Your task to perform on an android device: How much does a 2 bedroom apartment rent for in Boston? Image 0: 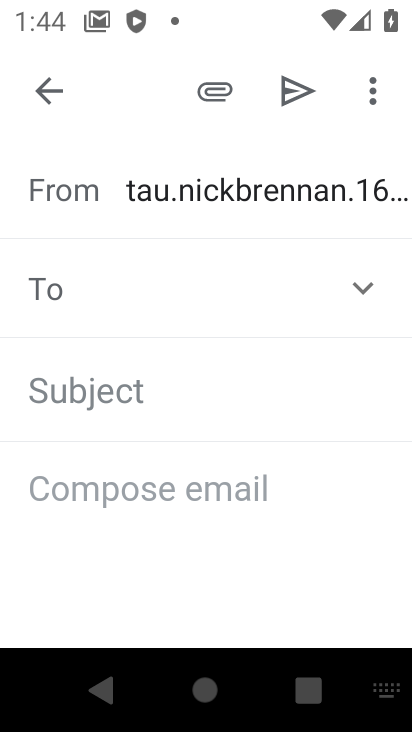
Step 0: press home button
Your task to perform on an android device: How much does a 2 bedroom apartment rent for in Boston? Image 1: 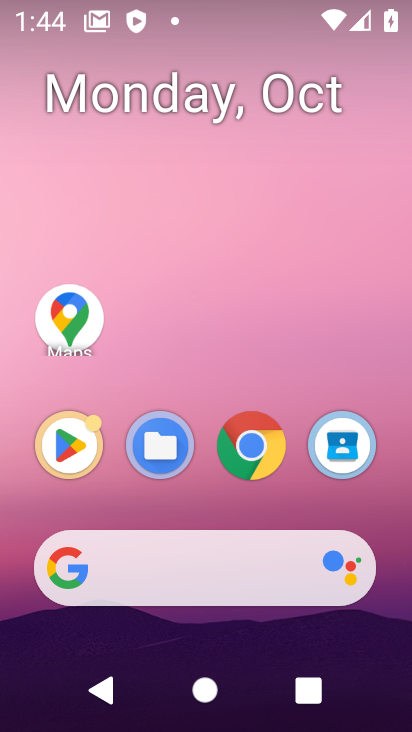
Step 1: click (213, 546)
Your task to perform on an android device: How much does a 2 bedroom apartment rent for in Boston? Image 2: 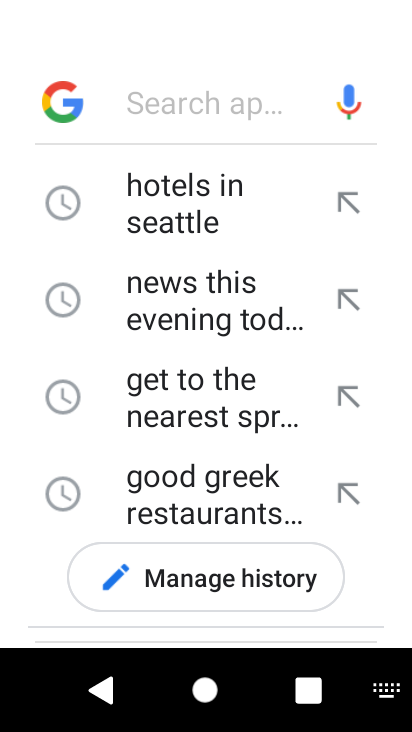
Step 2: type "2 bedroom apartment rent for in Boston"
Your task to perform on an android device: How much does a 2 bedroom apartment rent for in Boston? Image 3: 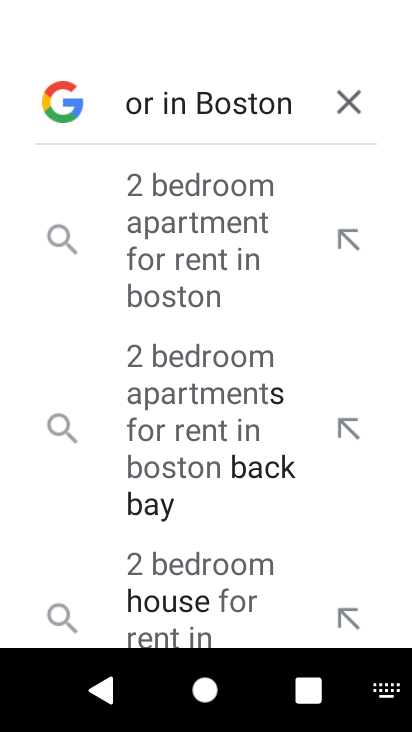
Step 3: click (167, 221)
Your task to perform on an android device: How much does a 2 bedroom apartment rent for in Boston? Image 4: 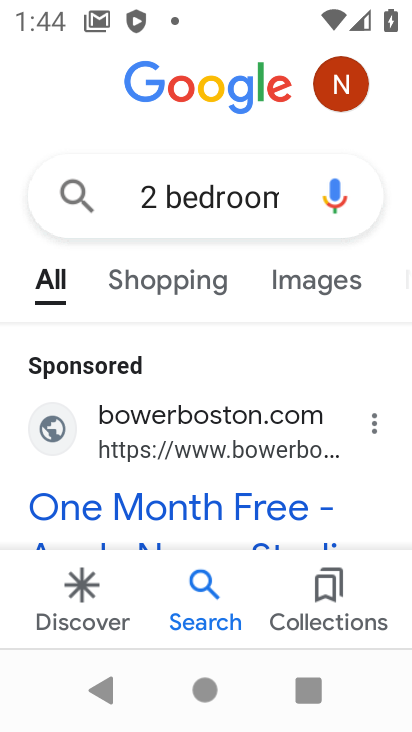
Step 4: drag from (209, 505) to (190, 259)
Your task to perform on an android device: How much does a 2 bedroom apartment rent for in Boston? Image 5: 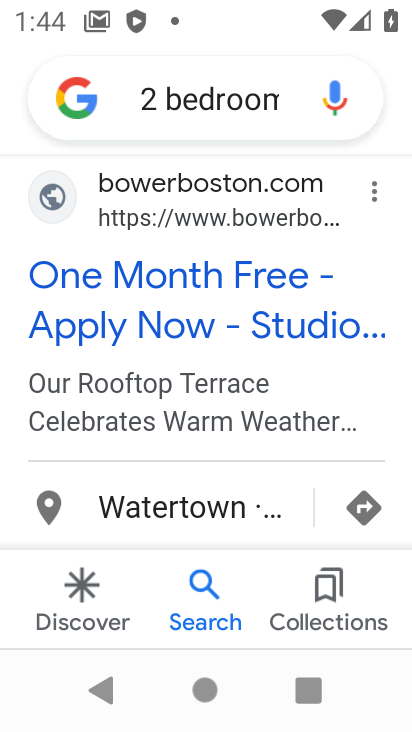
Step 5: drag from (199, 444) to (198, 287)
Your task to perform on an android device: How much does a 2 bedroom apartment rent for in Boston? Image 6: 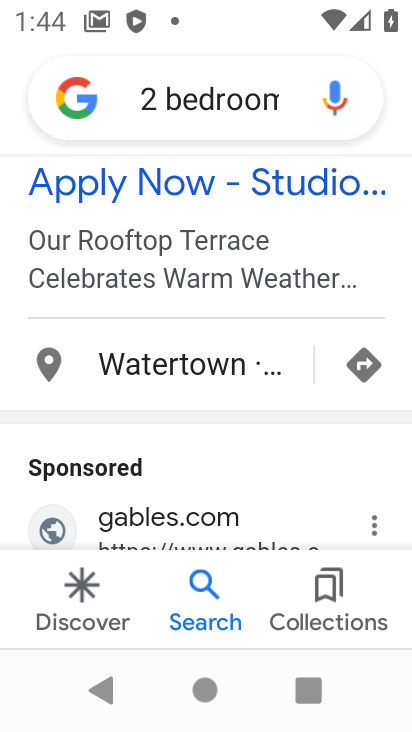
Step 6: drag from (190, 395) to (203, 189)
Your task to perform on an android device: How much does a 2 bedroom apartment rent for in Boston? Image 7: 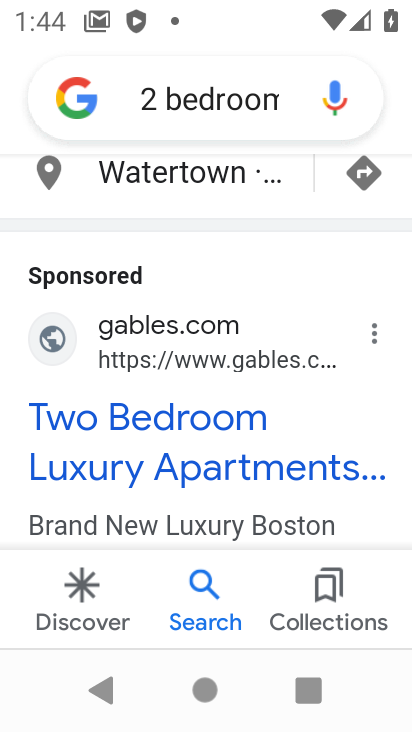
Step 7: drag from (193, 255) to (216, 180)
Your task to perform on an android device: How much does a 2 bedroom apartment rent for in Boston? Image 8: 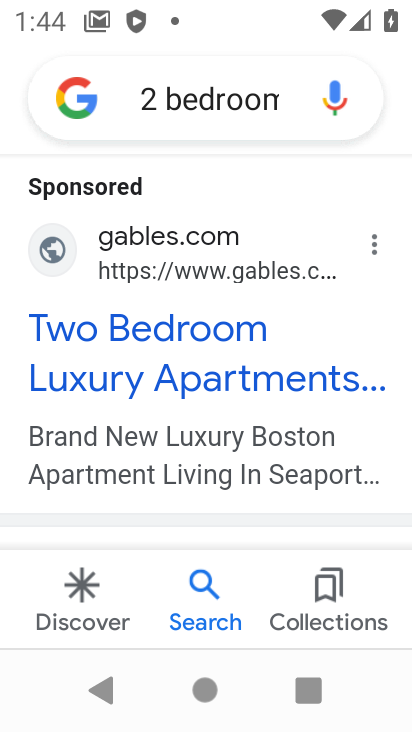
Step 8: drag from (164, 415) to (176, 374)
Your task to perform on an android device: How much does a 2 bedroom apartment rent for in Boston? Image 9: 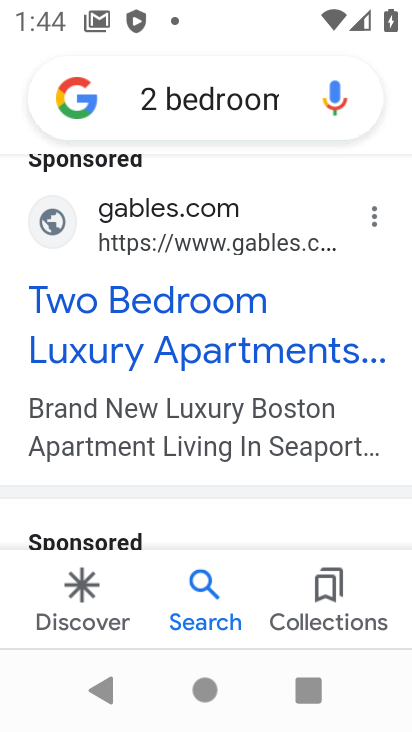
Step 9: click (176, 367)
Your task to perform on an android device: How much does a 2 bedroom apartment rent for in Boston? Image 10: 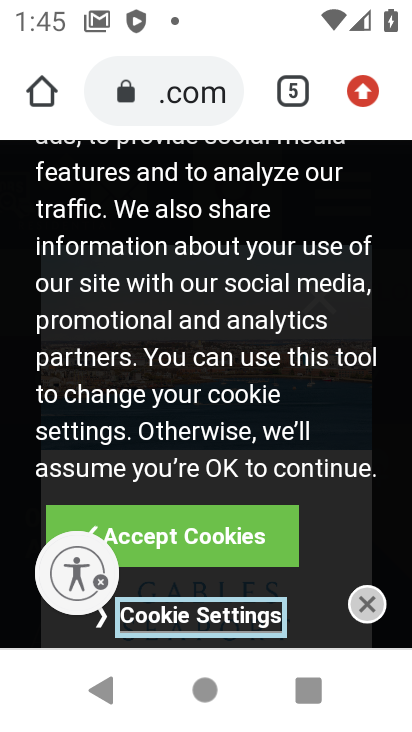
Step 10: task complete